Your task to perform on an android device: turn on notifications settings in the gmail app Image 0: 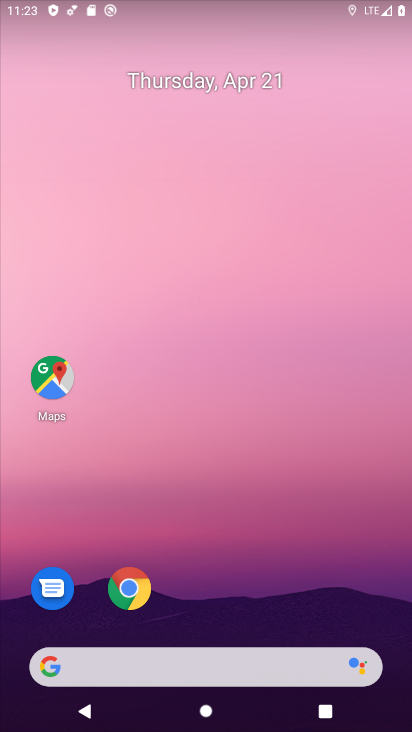
Step 0: drag from (246, 674) to (257, 195)
Your task to perform on an android device: turn on notifications settings in the gmail app Image 1: 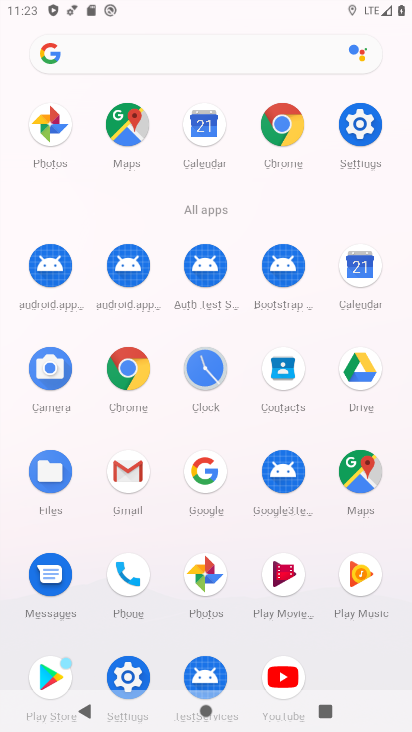
Step 1: click (129, 472)
Your task to perform on an android device: turn on notifications settings in the gmail app Image 2: 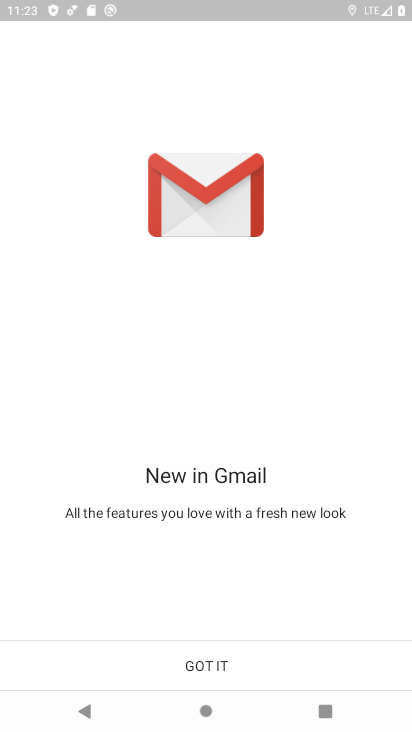
Step 2: click (189, 659)
Your task to perform on an android device: turn on notifications settings in the gmail app Image 3: 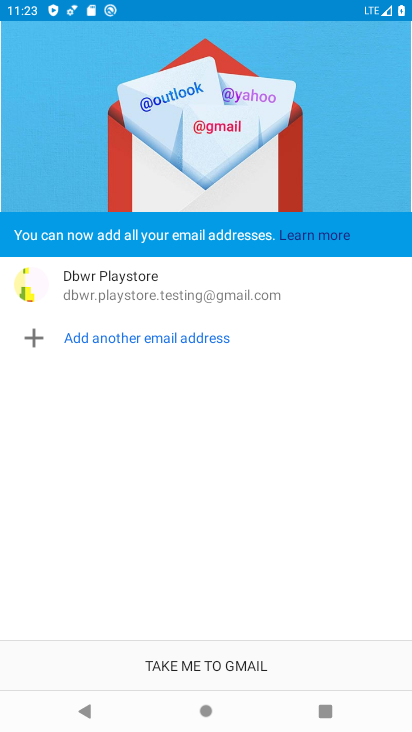
Step 3: click (189, 659)
Your task to perform on an android device: turn on notifications settings in the gmail app Image 4: 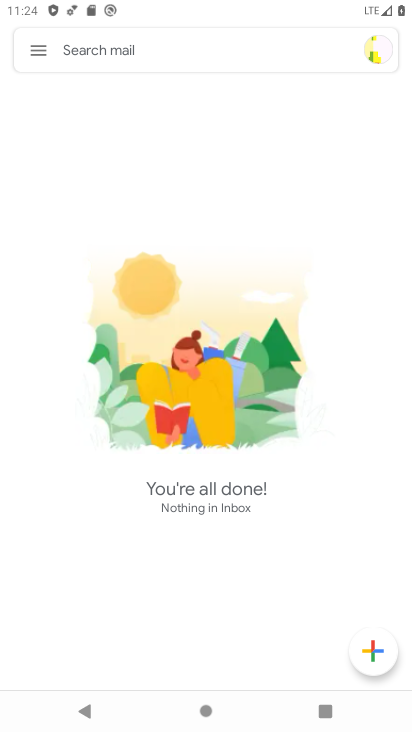
Step 4: click (40, 60)
Your task to perform on an android device: turn on notifications settings in the gmail app Image 5: 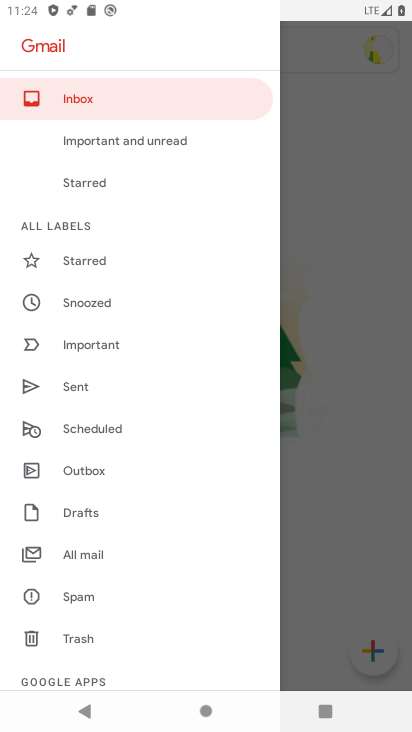
Step 5: drag from (85, 644) to (119, 554)
Your task to perform on an android device: turn on notifications settings in the gmail app Image 6: 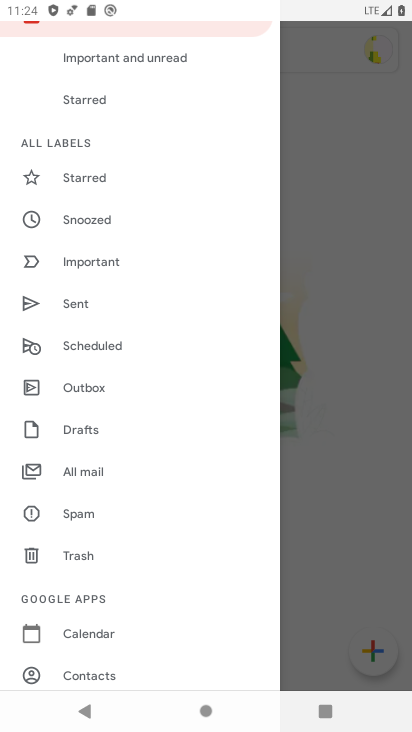
Step 6: drag from (124, 597) to (141, 509)
Your task to perform on an android device: turn on notifications settings in the gmail app Image 7: 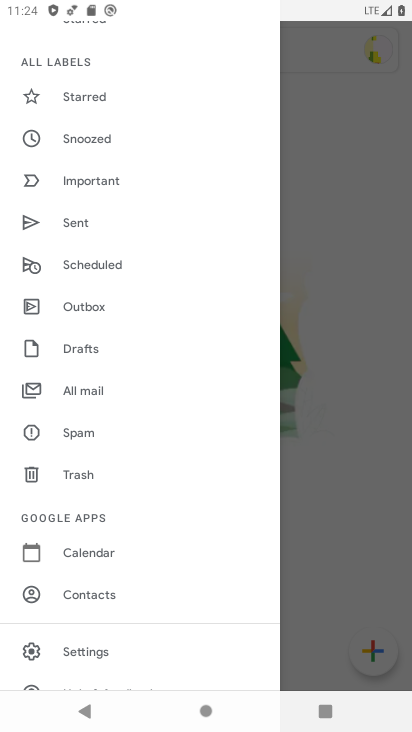
Step 7: click (72, 646)
Your task to perform on an android device: turn on notifications settings in the gmail app Image 8: 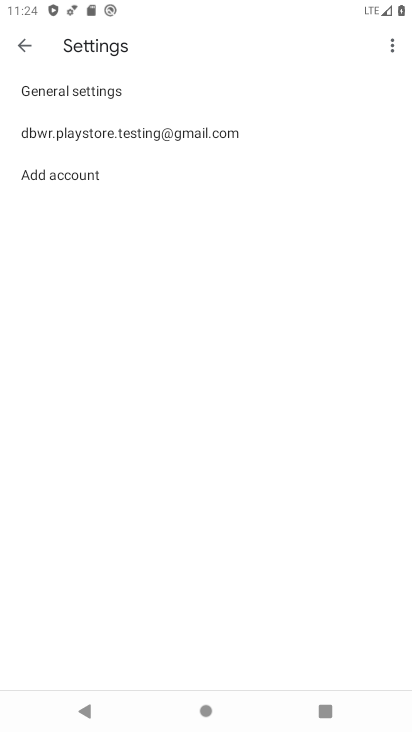
Step 8: click (139, 127)
Your task to perform on an android device: turn on notifications settings in the gmail app Image 9: 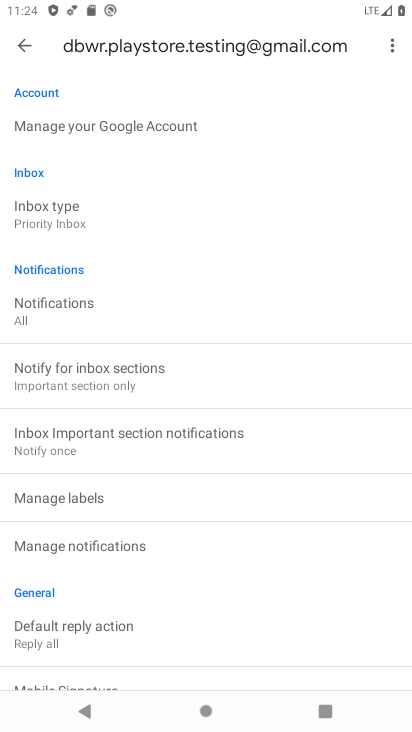
Step 9: click (66, 313)
Your task to perform on an android device: turn on notifications settings in the gmail app Image 10: 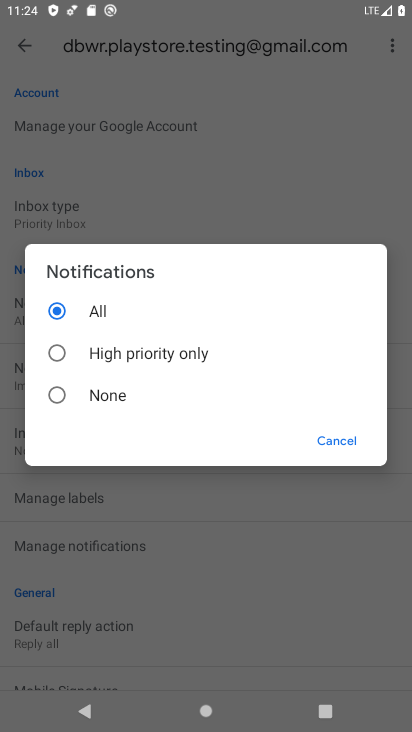
Step 10: click (117, 339)
Your task to perform on an android device: turn on notifications settings in the gmail app Image 11: 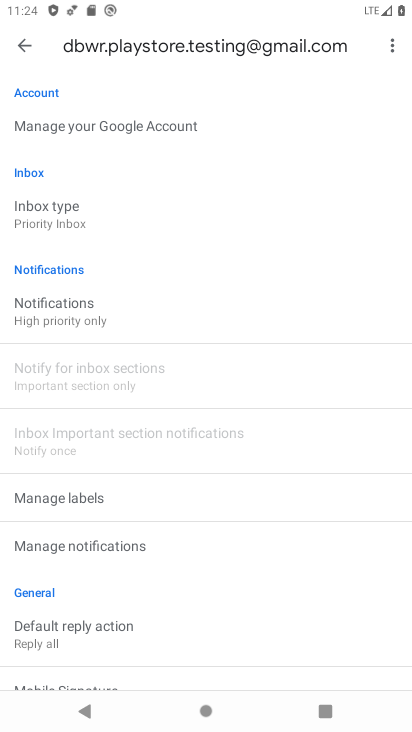
Step 11: task complete